Your task to perform on an android device: Open internet settings Image 0: 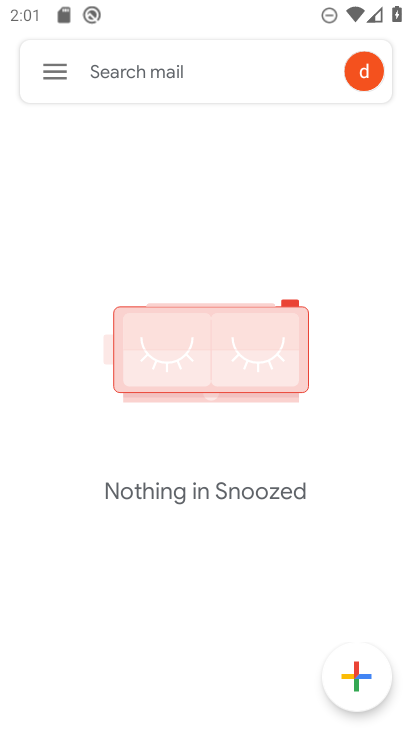
Step 0: press home button
Your task to perform on an android device: Open internet settings Image 1: 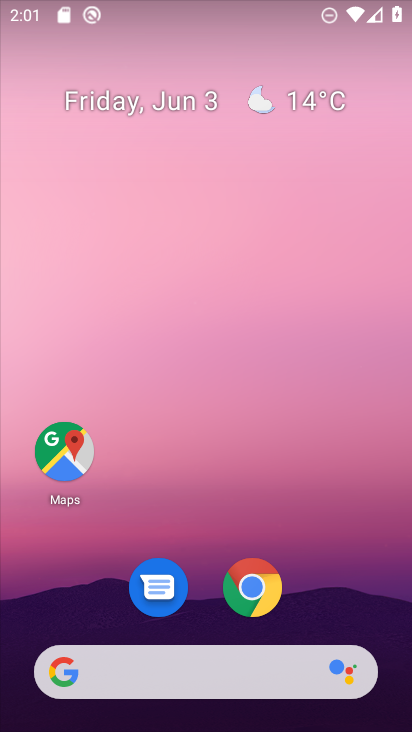
Step 1: drag from (319, 567) to (316, 0)
Your task to perform on an android device: Open internet settings Image 2: 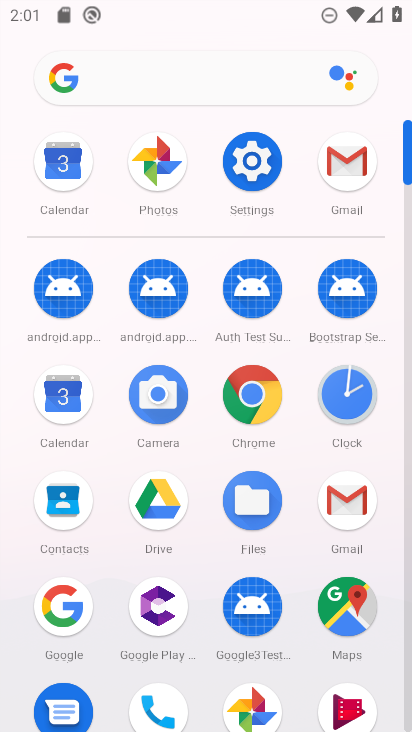
Step 2: click (249, 161)
Your task to perform on an android device: Open internet settings Image 3: 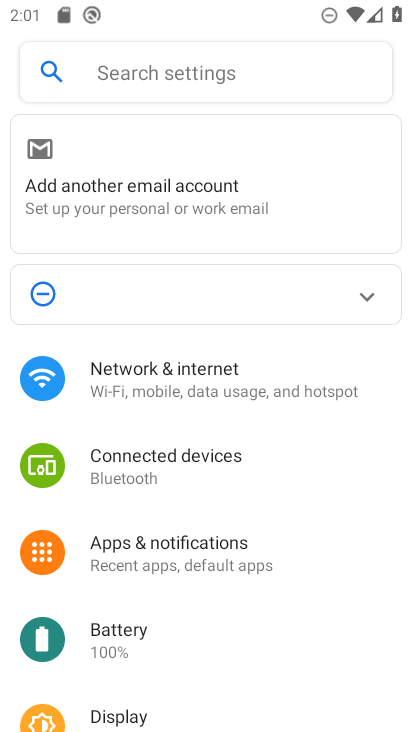
Step 3: click (126, 392)
Your task to perform on an android device: Open internet settings Image 4: 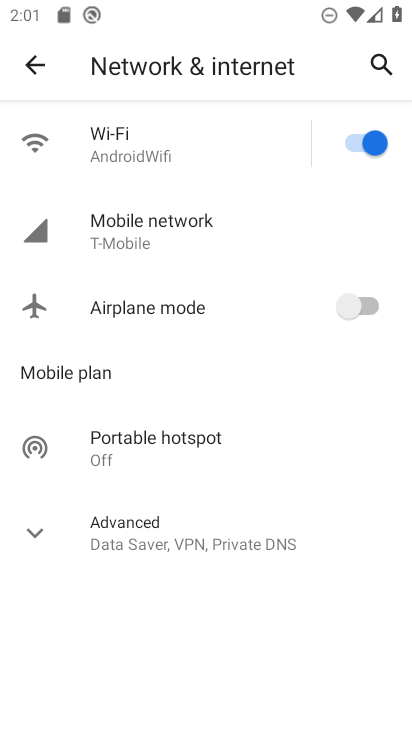
Step 4: click (116, 244)
Your task to perform on an android device: Open internet settings Image 5: 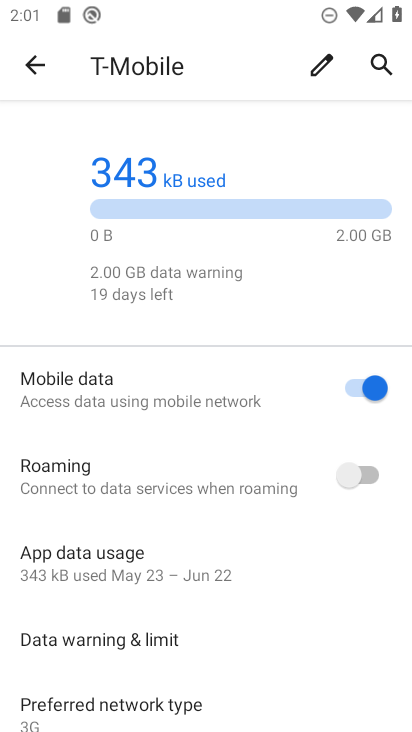
Step 5: task complete